Your task to perform on an android device: Open Reddit.com Image 0: 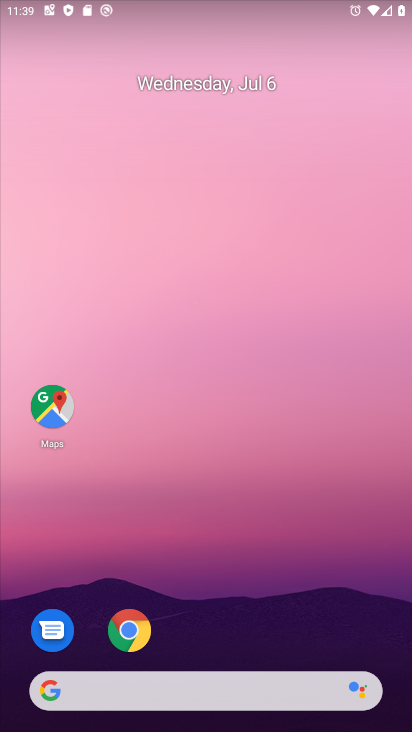
Step 0: drag from (241, 646) to (236, 3)
Your task to perform on an android device: Open Reddit.com Image 1: 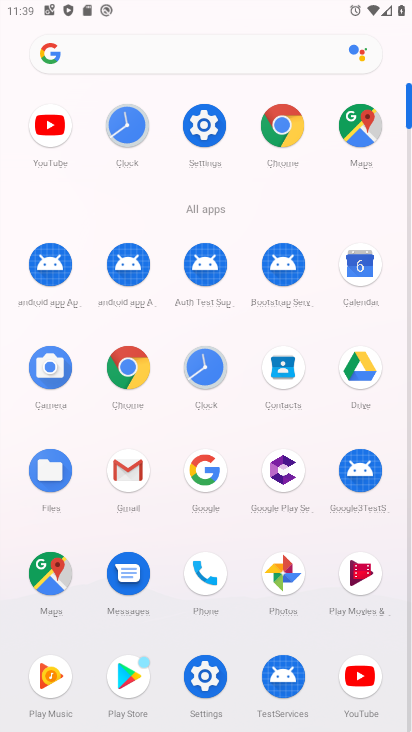
Step 1: click (276, 137)
Your task to perform on an android device: Open Reddit.com Image 2: 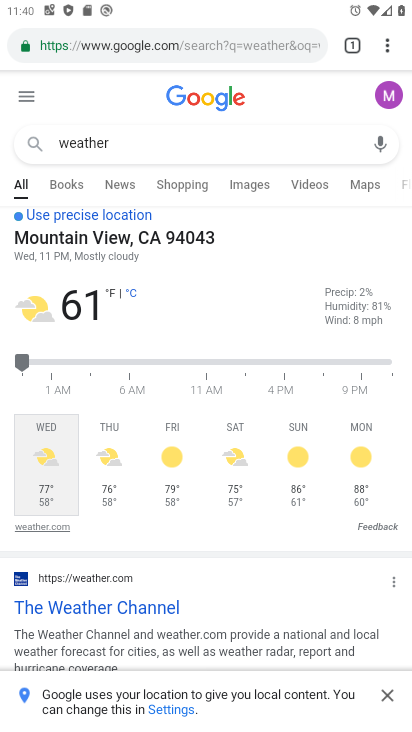
Step 2: click (201, 47)
Your task to perform on an android device: Open Reddit.com Image 3: 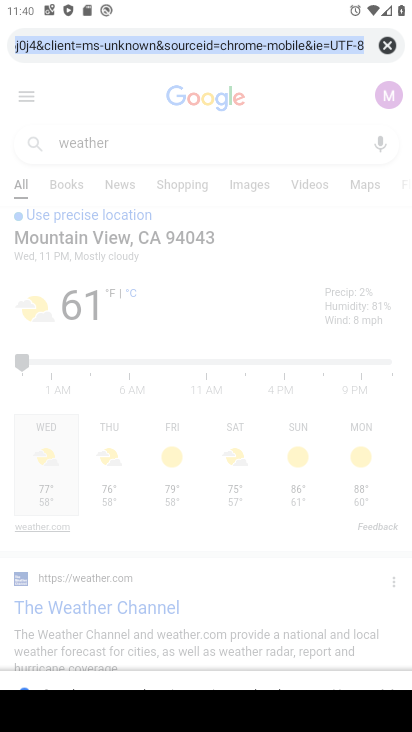
Step 3: type "Reddit.com"
Your task to perform on an android device: Open Reddit.com Image 4: 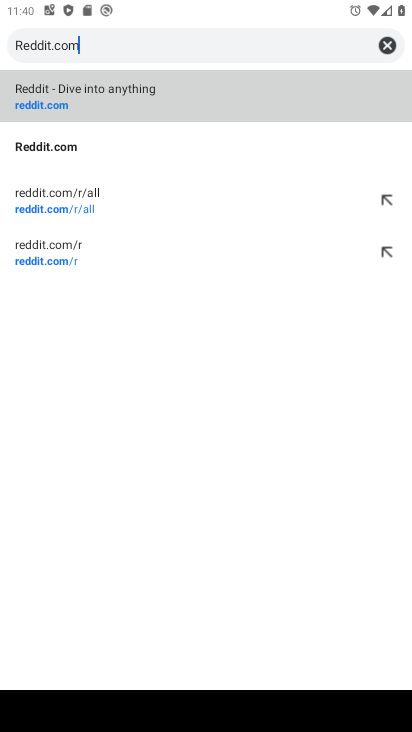
Step 4: click (108, 106)
Your task to perform on an android device: Open Reddit.com Image 5: 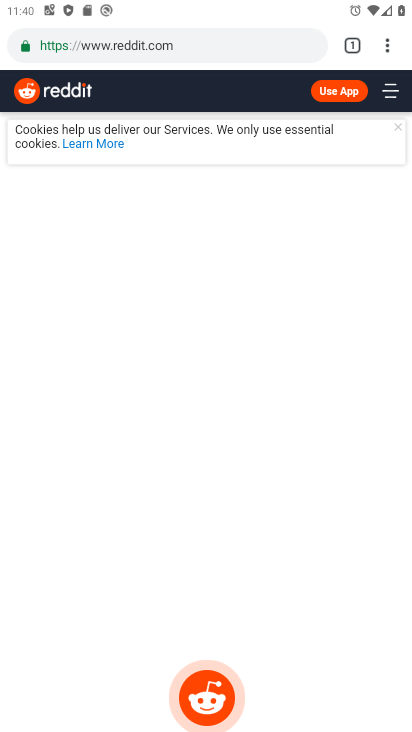
Step 5: task complete